Your task to perform on an android device: turn off javascript in the chrome app Image 0: 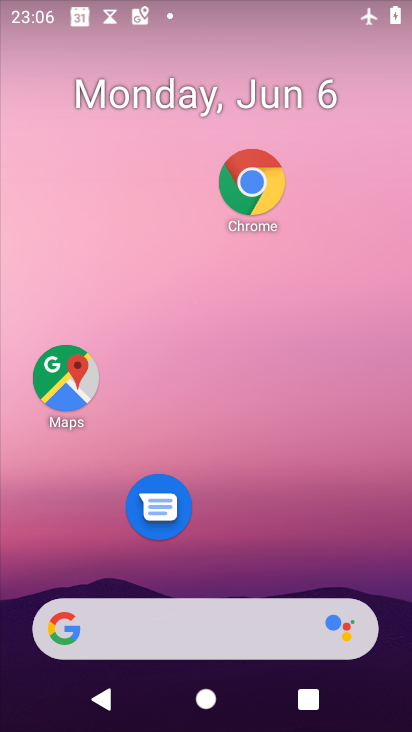
Step 0: drag from (226, 556) to (217, 282)
Your task to perform on an android device: turn off javascript in the chrome app Image 1: 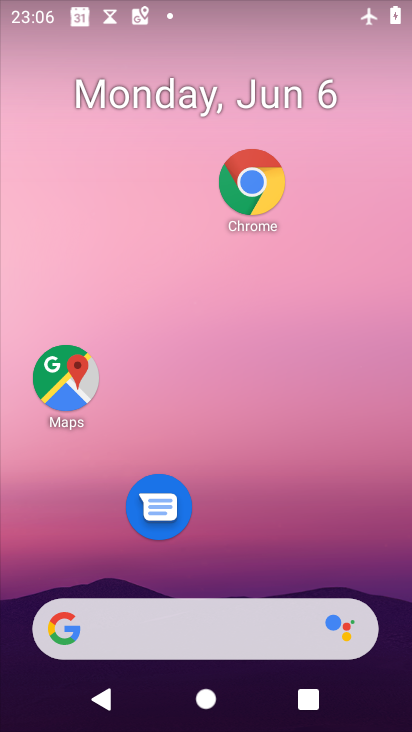
Step 1: click (252, 171)
Your task to perform on an android device: turn off javascript in the chrome app Image 2: 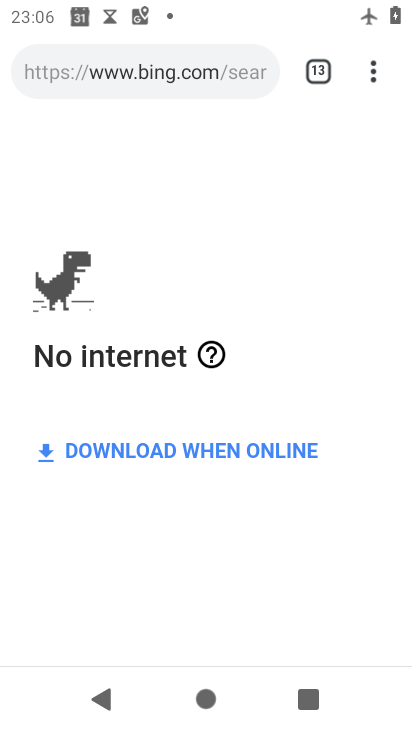
Step 2: click (372, 49)
Your task to perform on an android device: turn off javascript in the chrome app Image 3: 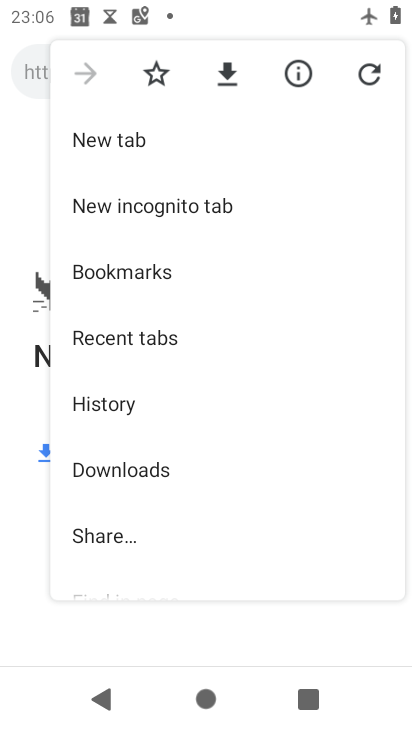
Step 3: drag from (150, 539) to (195, 264)
Your task to perform on an android device: turn off javascript in the chrome app Image 4: 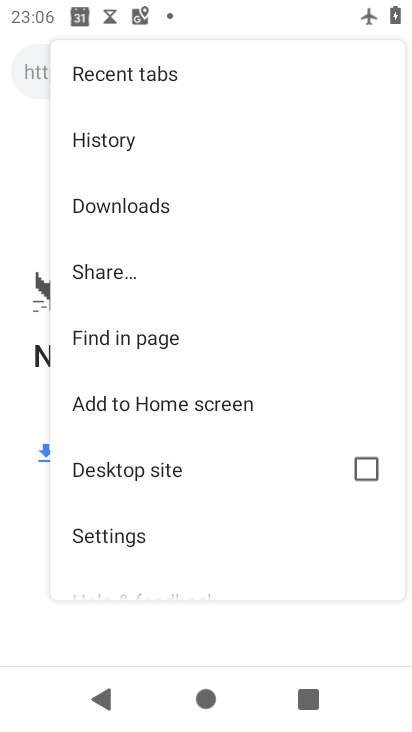
Step 4: click (123, 551)
Your task to perform on an android device: turn off javascript in the chrome app Image 5: 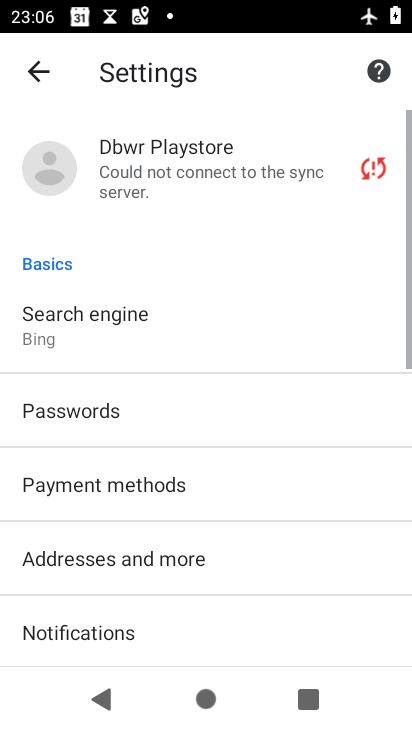
Step 5: drag from (150, 479) to (185, 209)
Your task to perform on an android device: turn off javascript in the chrome app Image 6: 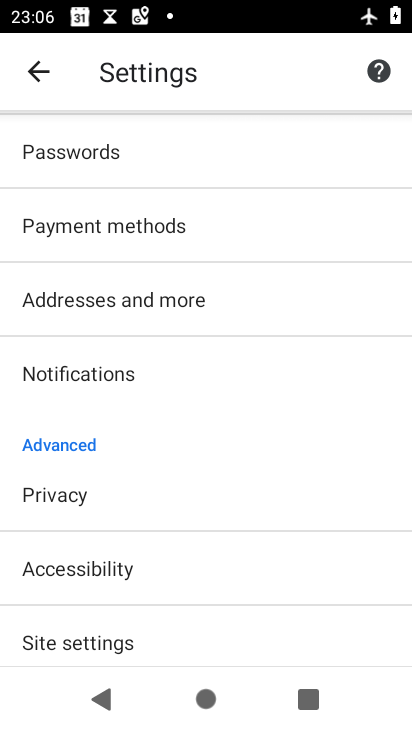
Step 6: drag from (165, 518) to (182, 390)
Your task to perform on an android device: turn off javascript in the chrome app Image 7: 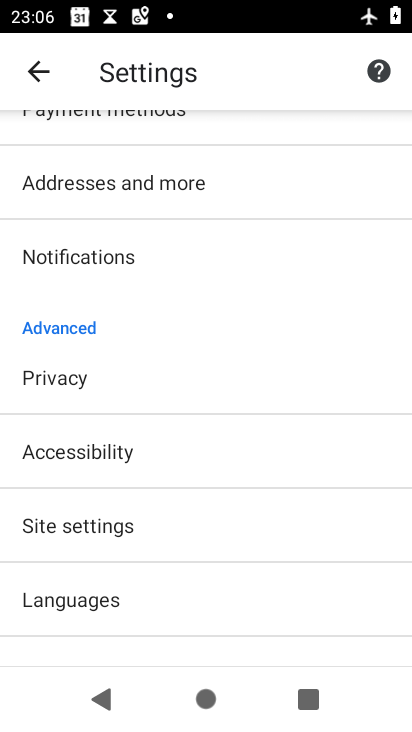
Step 7: click (106, 521)
Your task to perform on an android device: turn off javascript in the chrome app Image 8: 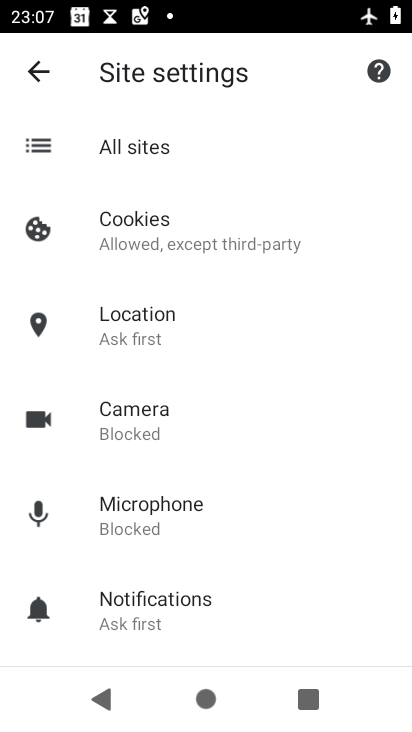
Step 8: drag from (186, 569) to (245, 270)
Your task to perform on an android device: turn off javascript in the chrome app Image 9: 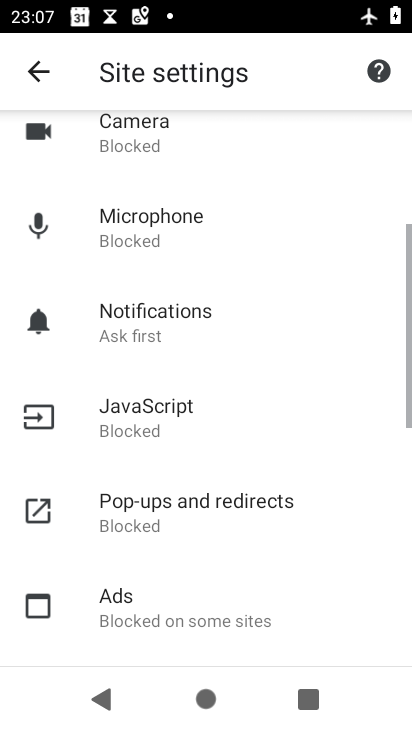
Step 9: click (162, 407)
Your task to perform on an android device: turn off javascript in the chrome app Image 10: 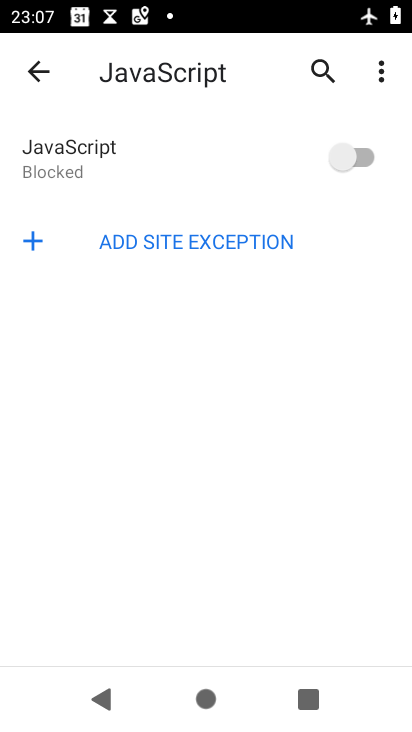
Step 10: task complete